Your task to perform on an android device: uninstall "Contacts" Image 0: 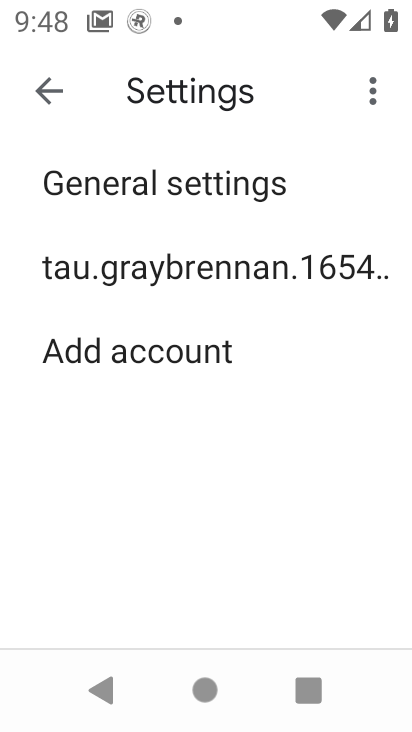
Step 0: task complete